Your task to perform on an android device: open wifi settings Image 0: 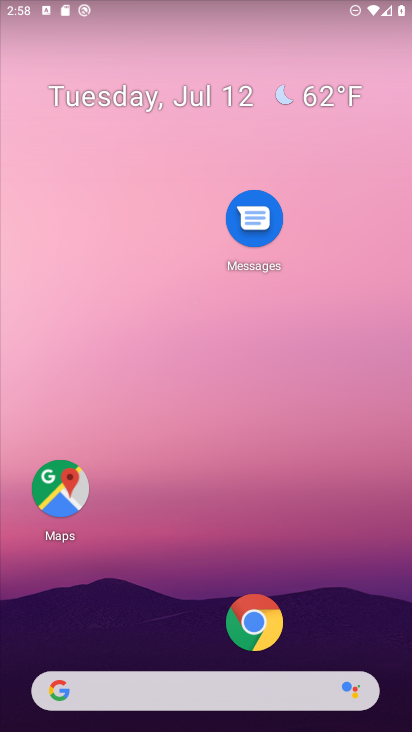
Step 0: press home button
Your task to perform on an android device: open wifi settings Image 1: 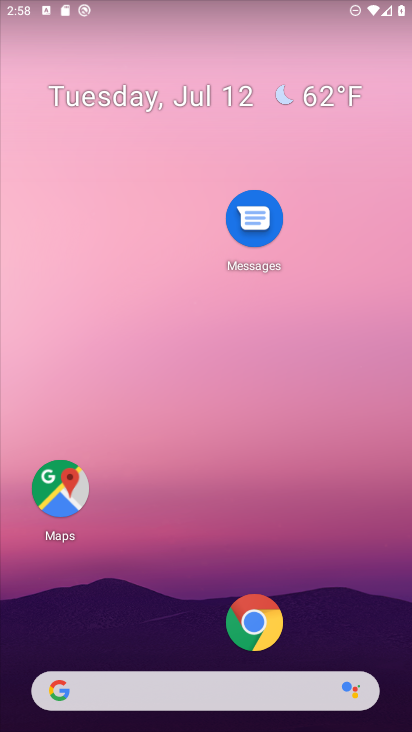
Step 1: drag from (193, 655) to (182, 7)
Your task to perform on an android device: open wifi settings Image 2: 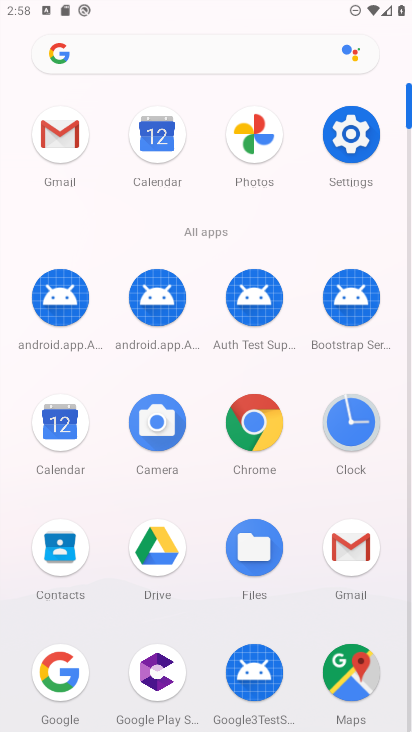
Step 2: click (344, 133)
Your task to perform on an android device: open wifi settings Image 3: 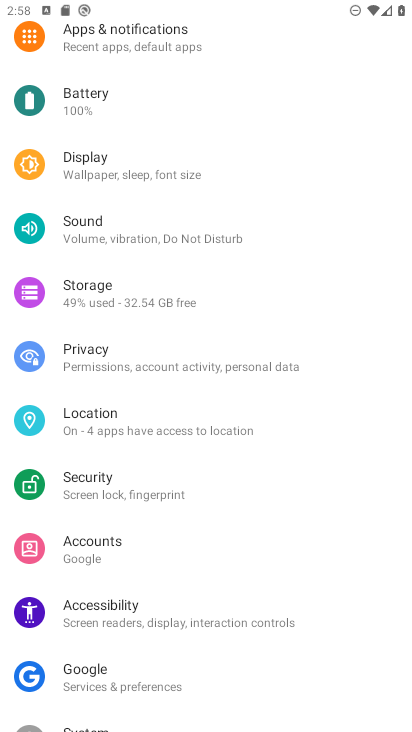
Step 3: drag from (164, 67) to (201, 648)
Your task to perform on an android device: open wifi settings Image 4: 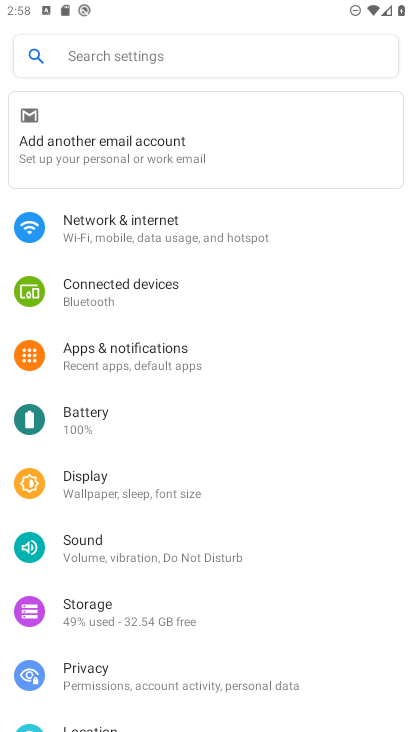
Step 4: click (163, 227)
Your task to perform on an android device: open wifi settings Image 5: 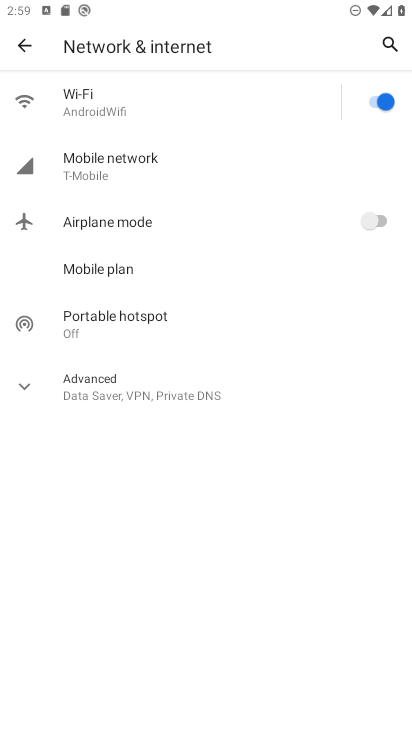
Step 5: click (140, 103)
Your task to perform on an android device: open wifi settings Image 6: 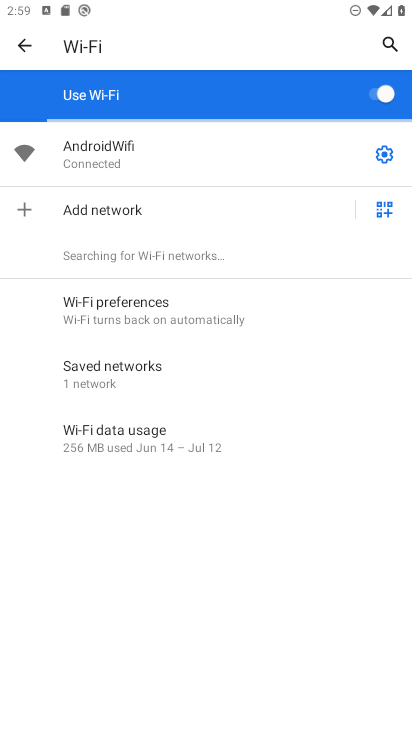
Step 6: task complete